Your task to perform on an android device: open a new tab in the chrome app Image 0: 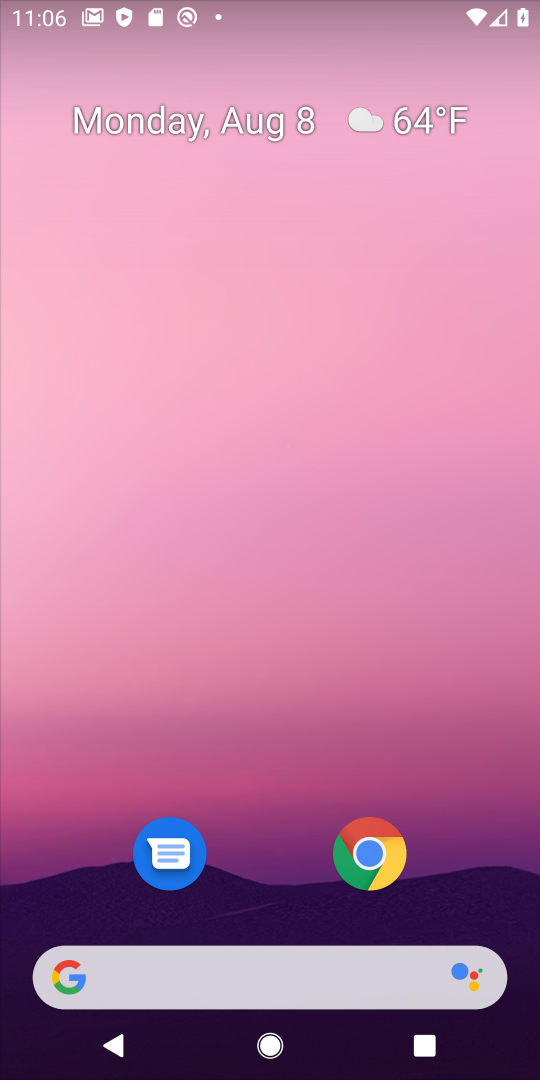
Step 0: click (372, 859)
Your task to perform on an android device: open a new tab in the chrome app Image 1: 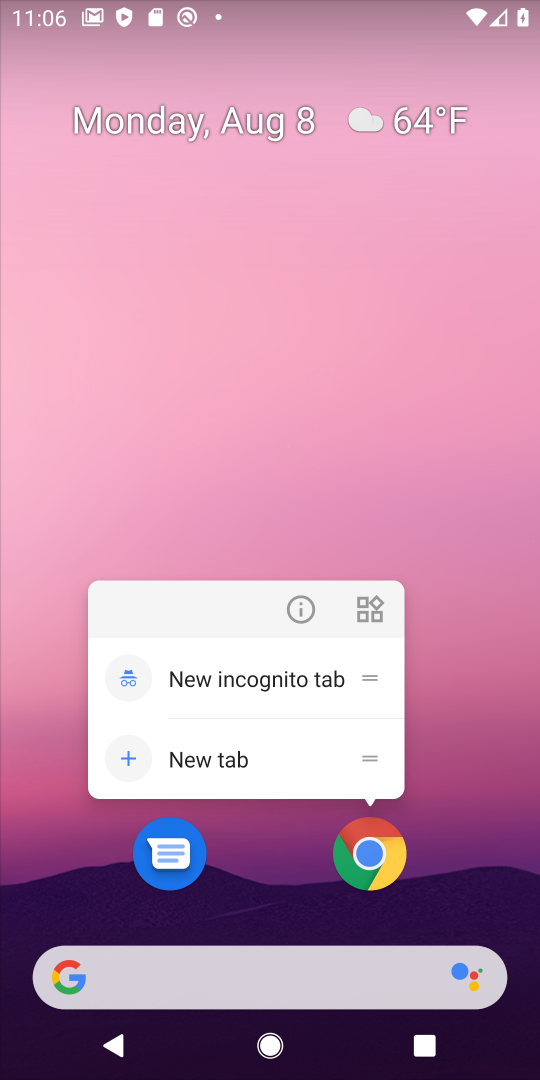
Step 1: click (192, 761)
Your task to perform on an android device: open a new tab in the chrome app Image 2: 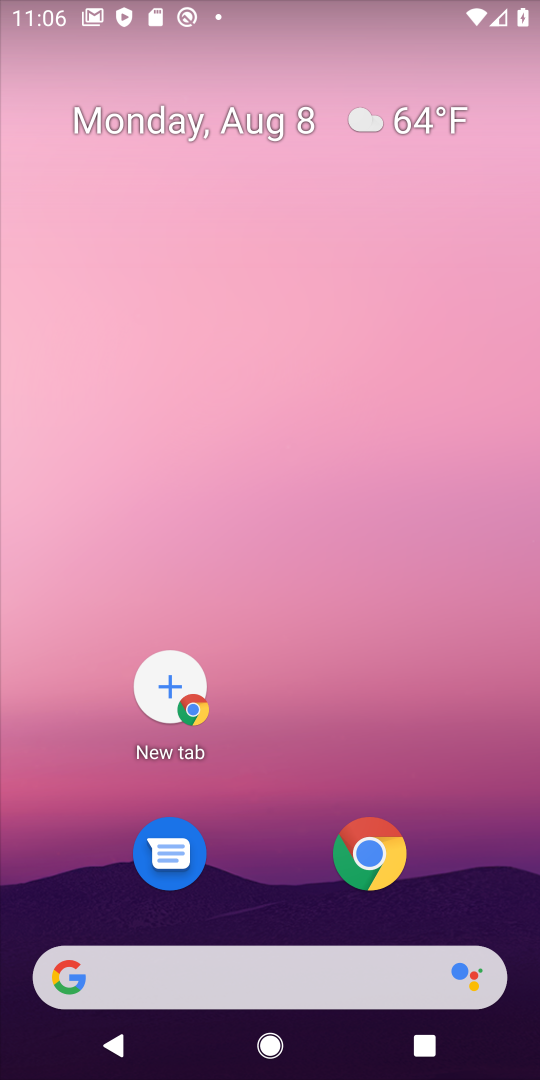
Step 2: click (359, 842)
Your task to perform on an android device: open a new tab in the chrome app Image 3: 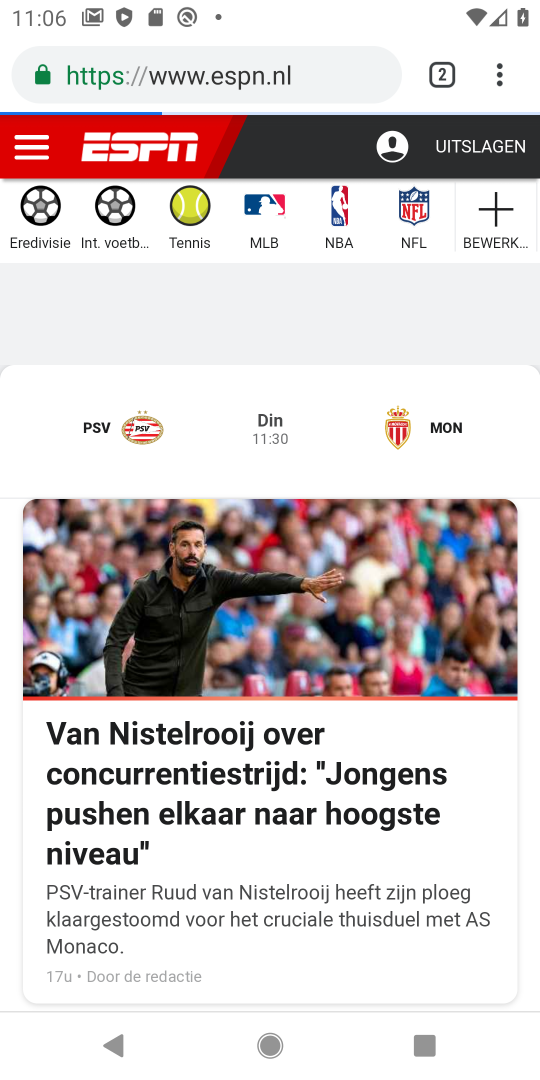
Step 3: click (438, 67)
Your task to perform on an android device: open a new tab in the chrome app Image 4: 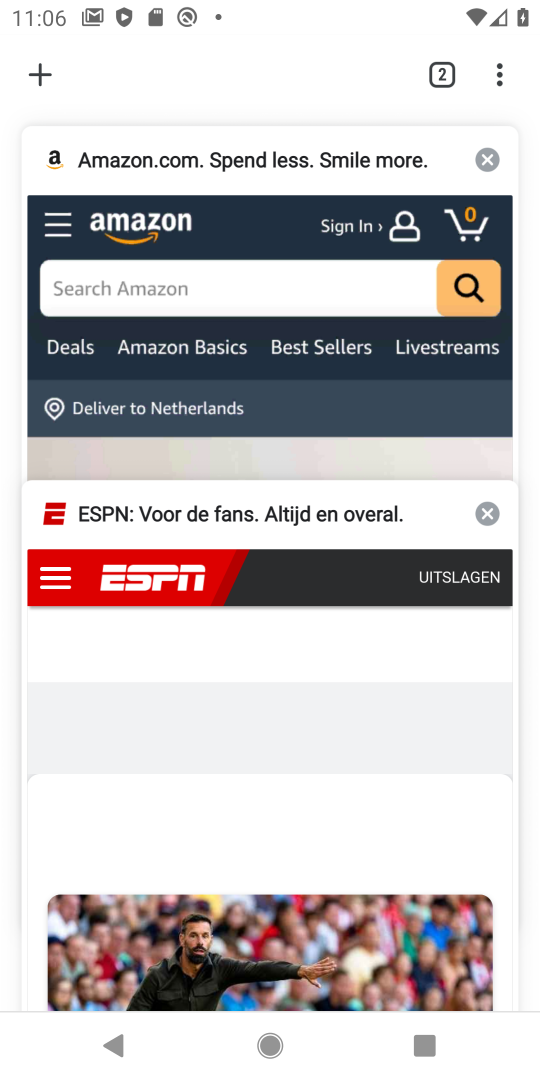
Step 4: click (37, 75)
Your task to perform on an android device: open a new tab in the chrome app Image 5: 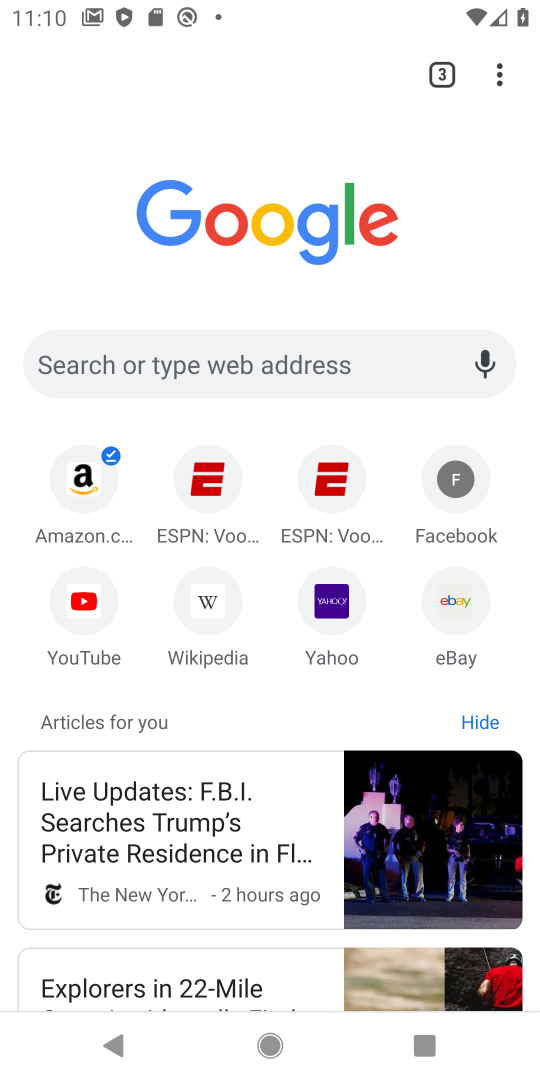
Step 5: task complete